Your task to perform on an android device: turn off wifi Image 0: 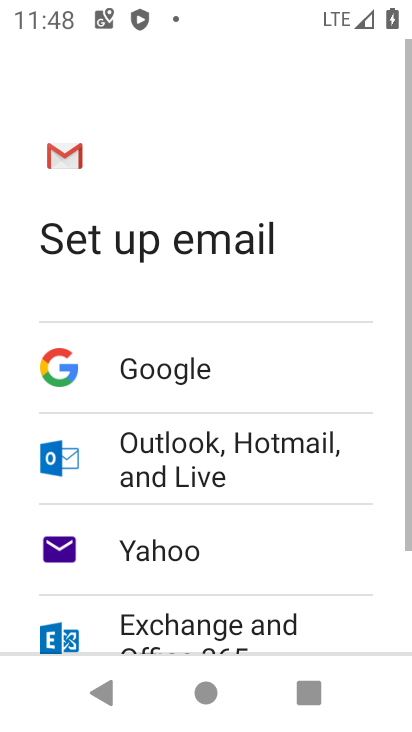
Step 0: press home button
Your task to perform on an android device: turn off wifi Image 1: 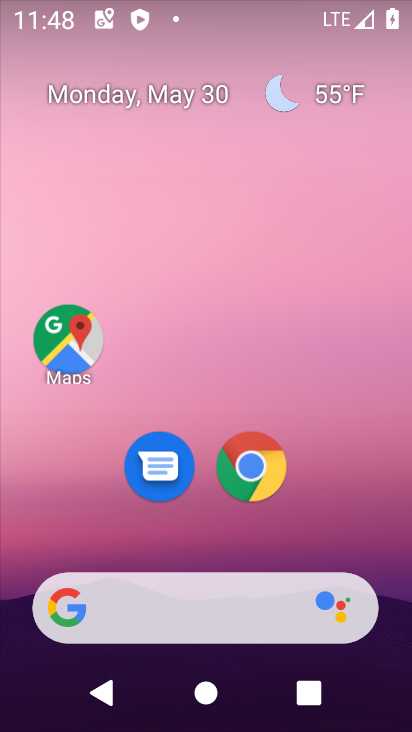
Step 1: task complete